Your task to perform on an android device: Open battery settings Image 0: 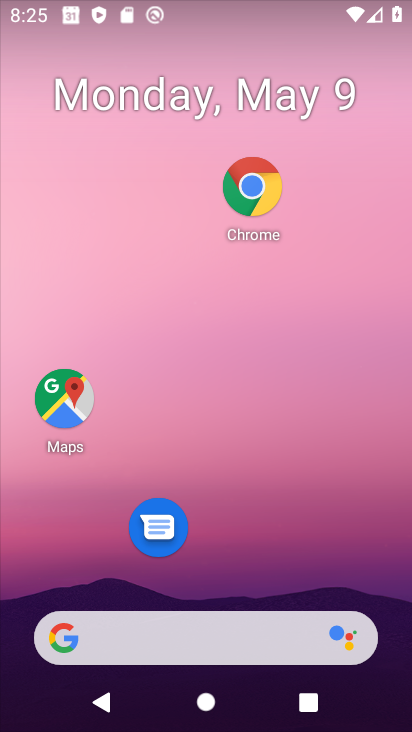
Step 0: drag from (214, 591) to (224, 95)
Your task to perform on an android device: Open battery settings Image 1: 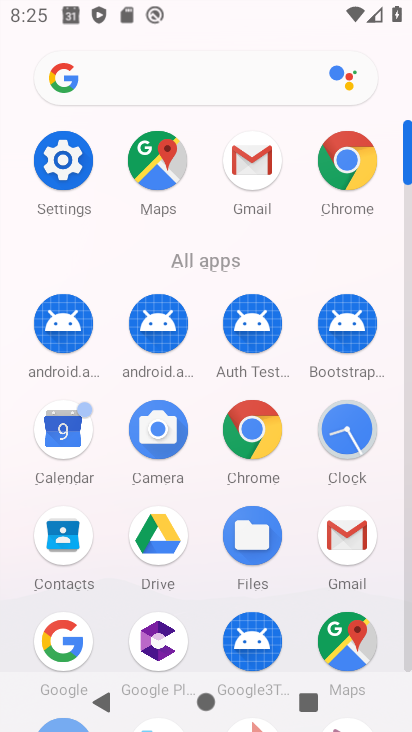
Step 1: click (58, 156)
Your task to perform on an android device: Open battery settings Image 2: 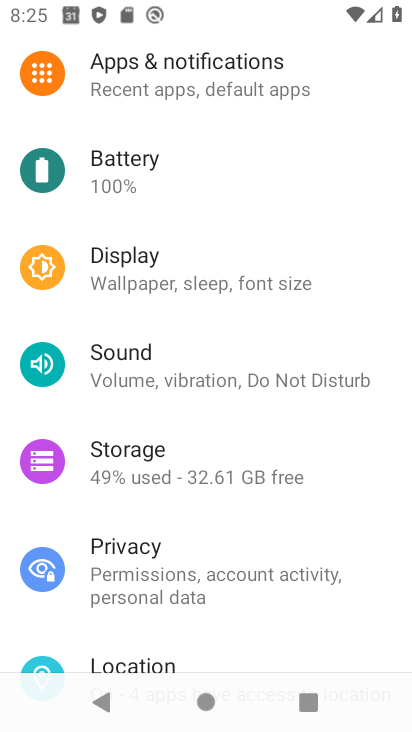
Step 2: click (158, 171)
Your task to perform on an android device: Open battery settings Image 3: 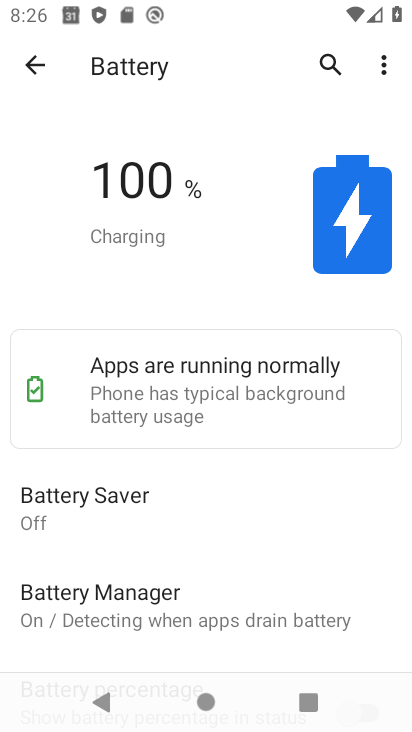
Step 3: task complete